Your task to perform on an android device: turn smart compose on in the gmail app Image 0: 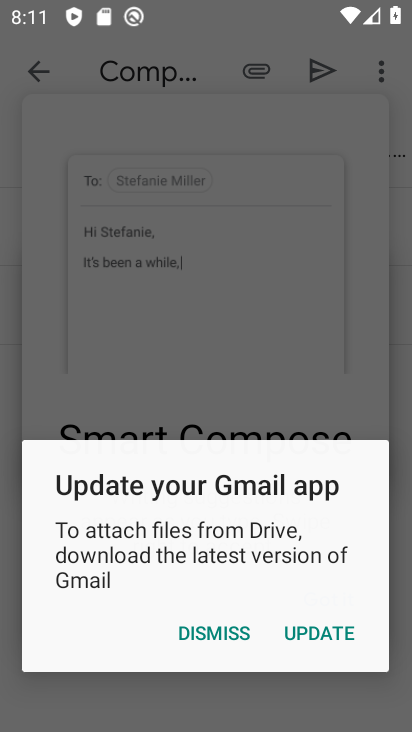
Step 0: press home button
Your task to perform on an android device: turn smart compose on in the gmail app Image 1: 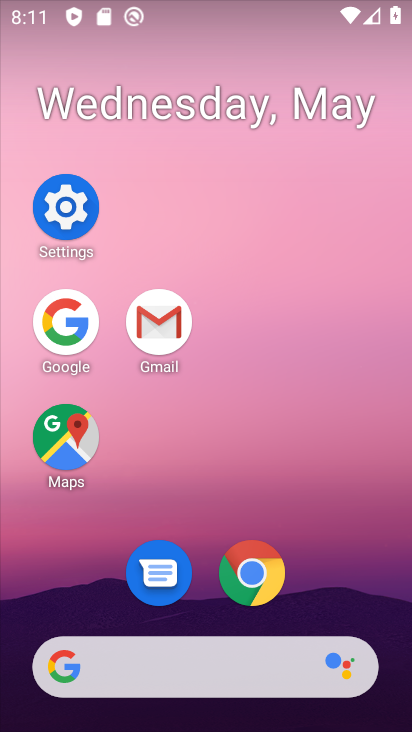
Step 1: click (143, 336)
Your task to perform on an android device: turn smart compose on in the gmail app Image 2: 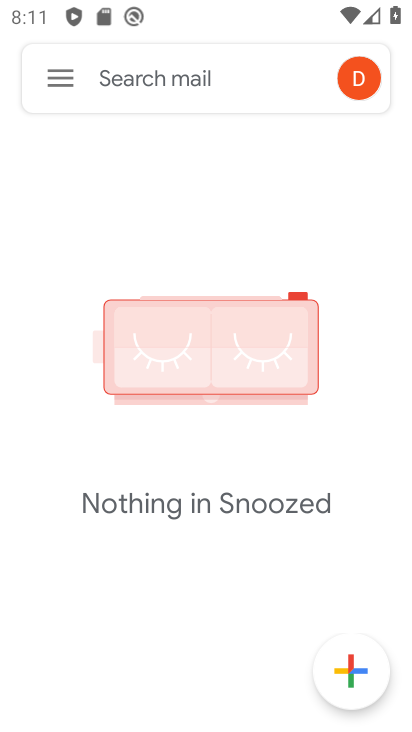
Step 2: click (43, 72)
Your task to perform on an android device: turn smart compose on in the gmail app Image 3: 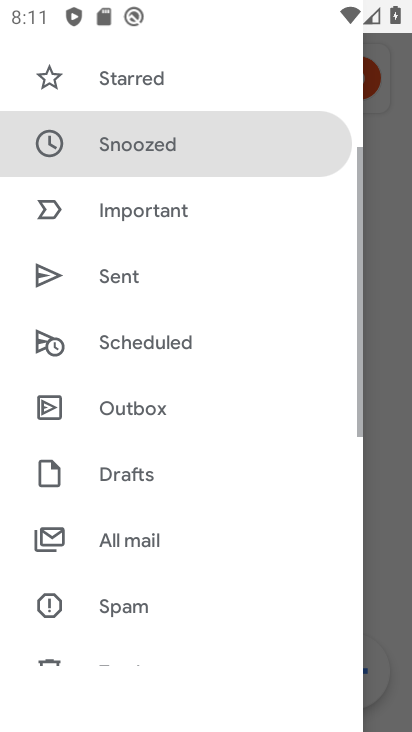
Step 3: drag from (90, 561) to (120, 64)
Your task to perform on an android device: turn smart compose on in the gmail app Image 4: 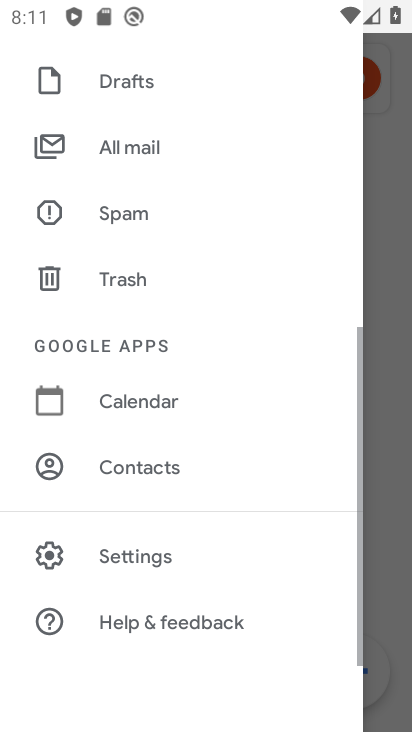
Step 4: click (163, 574)
Your task to perform on an android device: turn smart compose on in the gmail app Image 5: 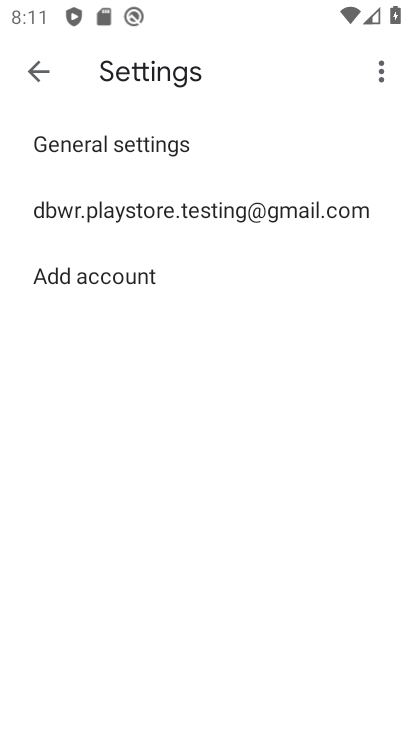
Step 5: click (264, 215)
Your task to perform on an android device: turn smart compose on in the gmail app Image 6: 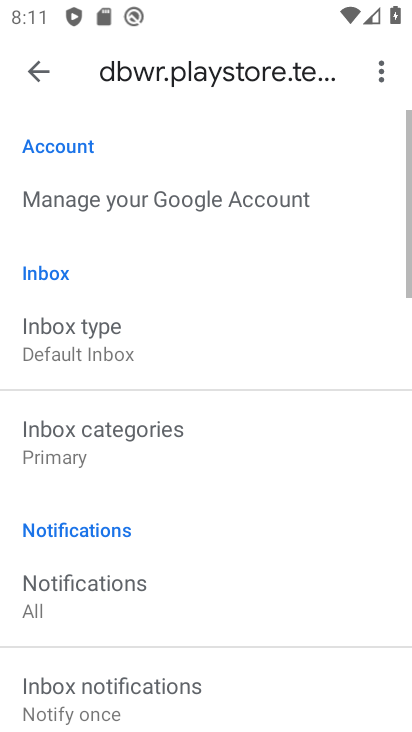
Step 6: task complete